Your task to perform on an android device: What is the recent news? Image 0: 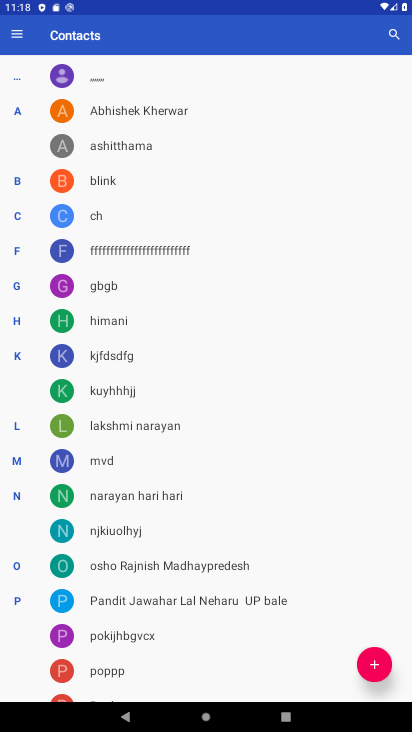
Step 0: press home button
Your task to perform on an android device: What is the recent news? Image 1: 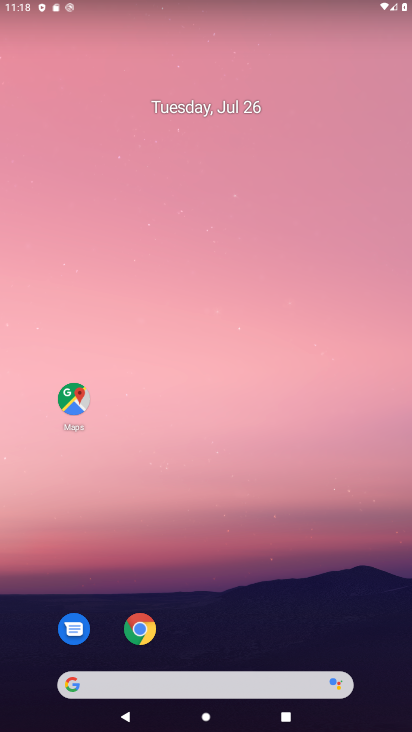
Step 1: task complete